Your task to perform on an android device: Check the weather Image 0: 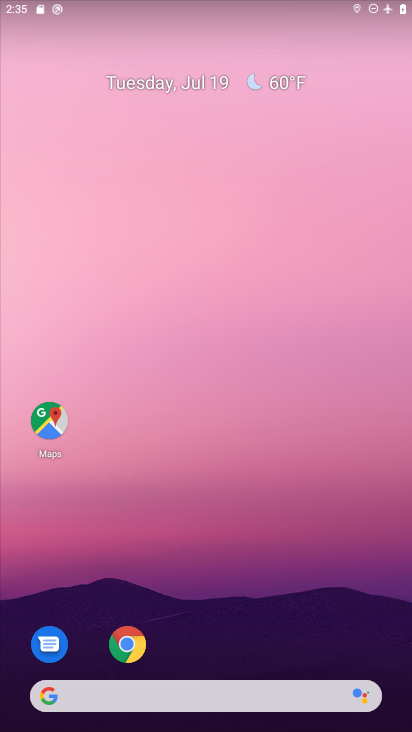
Step 0: click (210, 691)
Your task to perform on an android device: Check the weather Image 1: 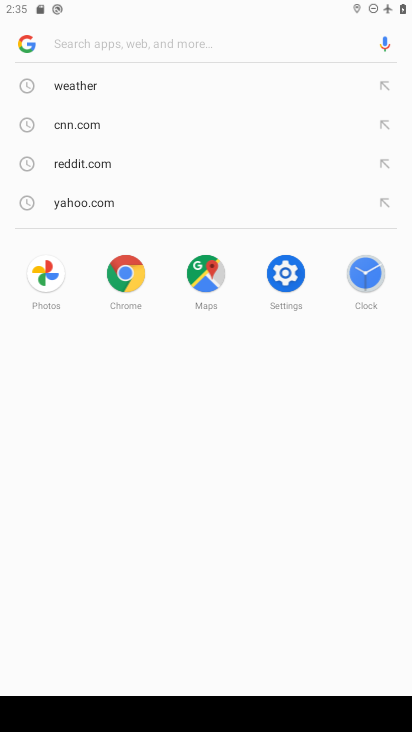
Step 1: click (78, 71)
Your task to perform on an android device: Check the weather Image 2: 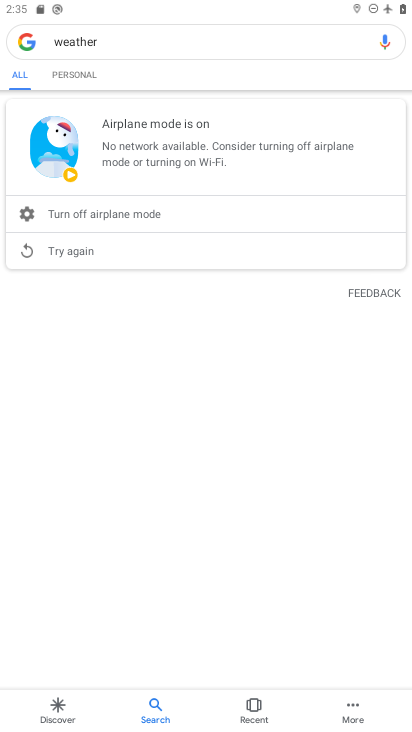
Step 2: task complete